Your task to perform on an android device: Check the weather Image 0: 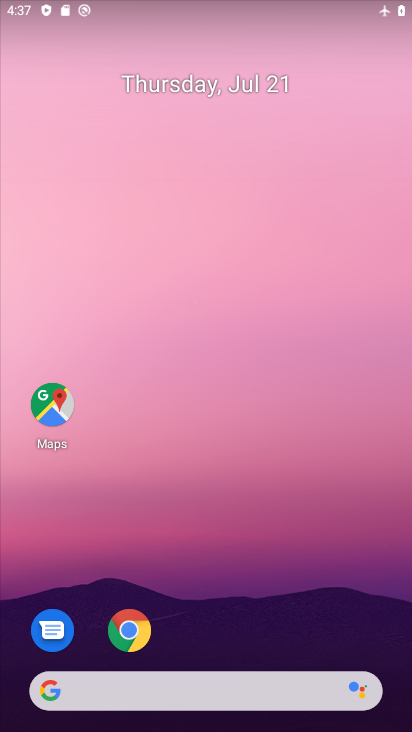
Step 0: drag from (373, 620) to (247, 99)
Your task to perform on an android device: Check the weather Image 1: 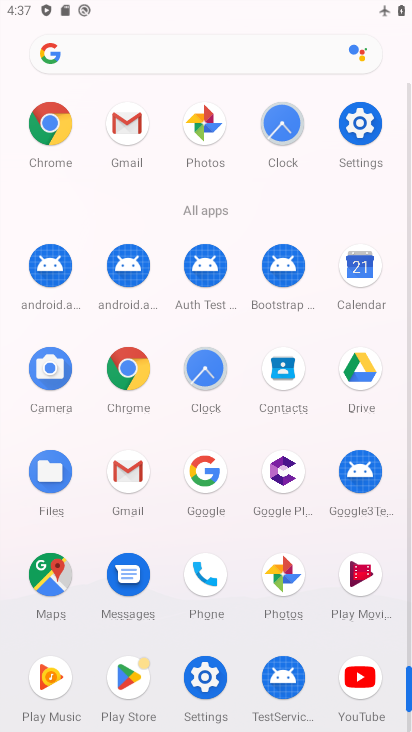
Step 1: click (57, 129)
Your task to perform on an android device: Check the weather Image 2: 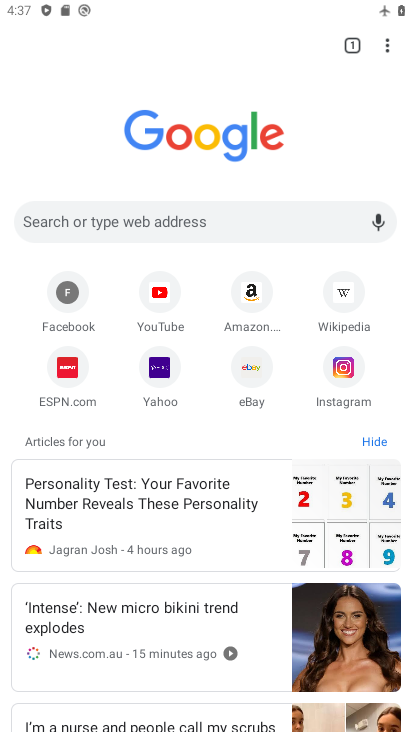
Step 2: click (164, 210)
Your task to perform on an android device: Check the weather Image 3: 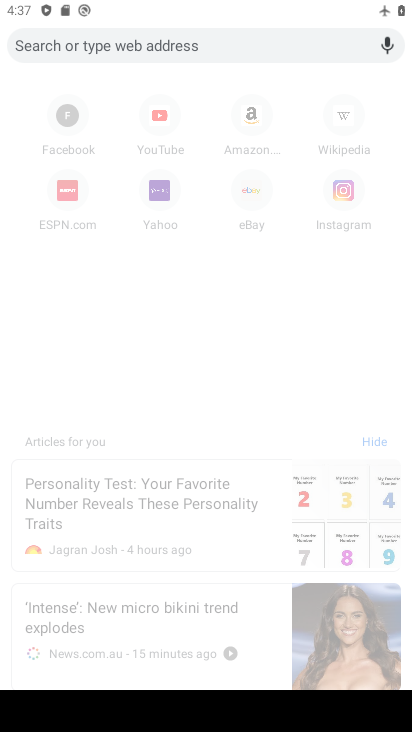
Step 3: type "Check the weather"
Your task to perform on an android device: Check the weather Image 4: 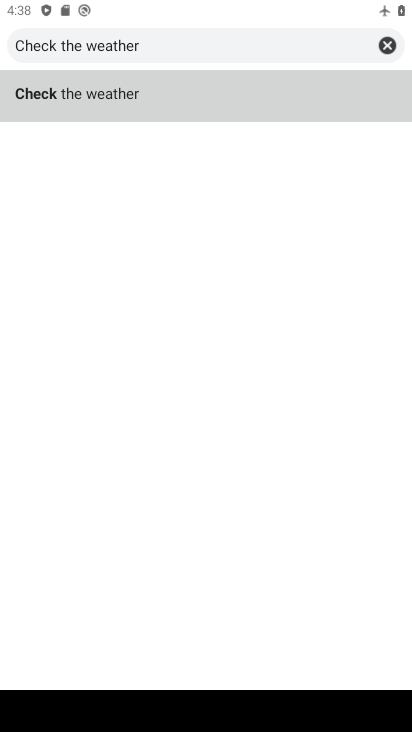
Step 4: click (214, 102)
Your task to perform on an android device: Check the weather Image 5: 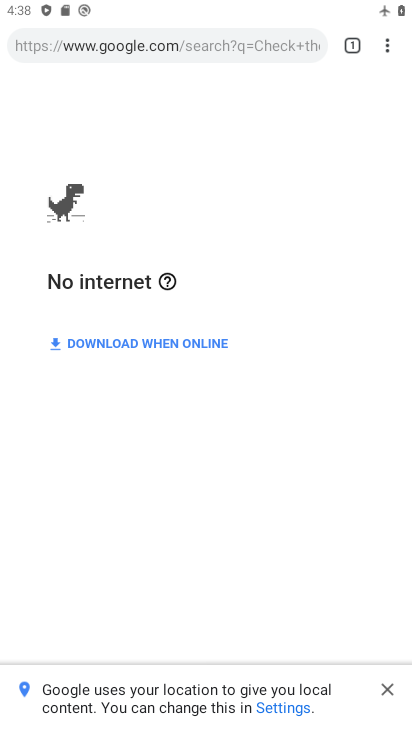
Step 5: task complete